Your task to perform on an android device: Show me productivity apps on the Play Store Image 0: 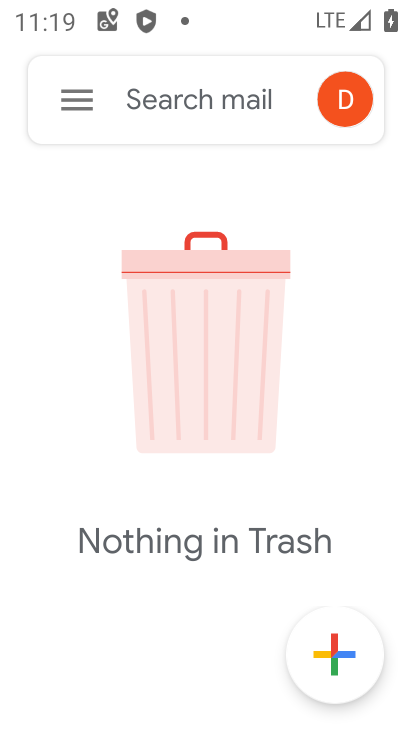
Step 0: press home button
Your task to perform on an android device: Show me productivity apps on the Play Store Image 1: 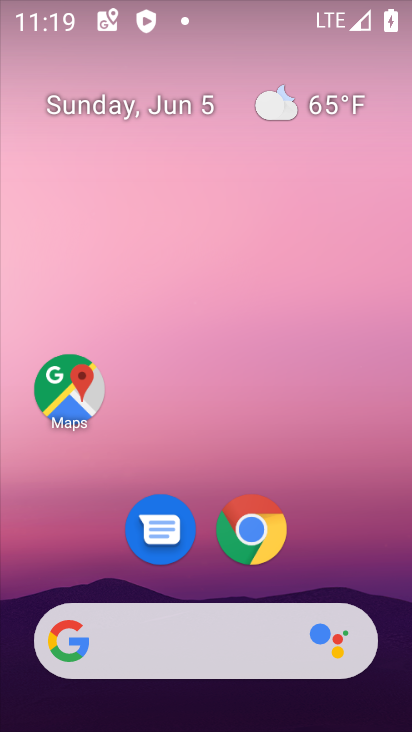
Step 1: drag from (129, 726) to (287, 88)
Your task to perform on an android device: Show me productivity apps on the Play Store Image 2: 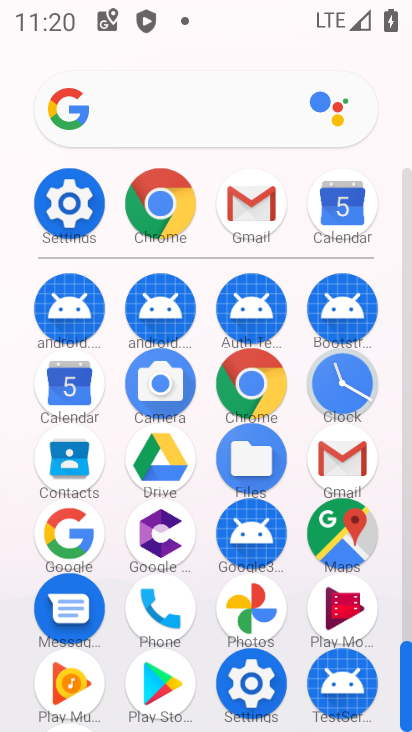
Step 2: click (151, 676)
Your task to perform on an android device: Show me productivity apps on the Play Store Image 3: 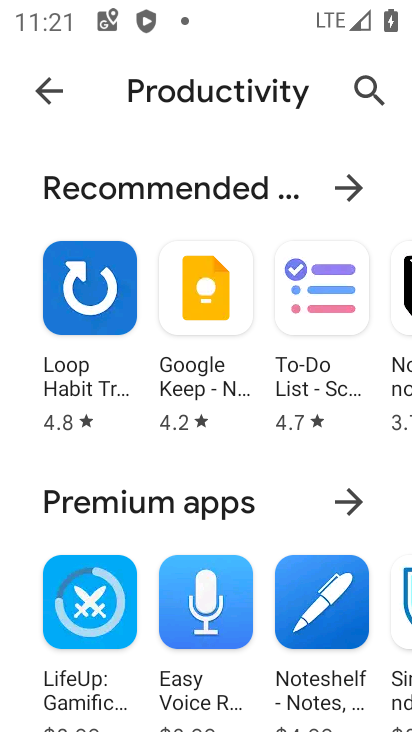
Step 3: task complete